Your task to perform on an android device: Go to ESPN.com Image 0: 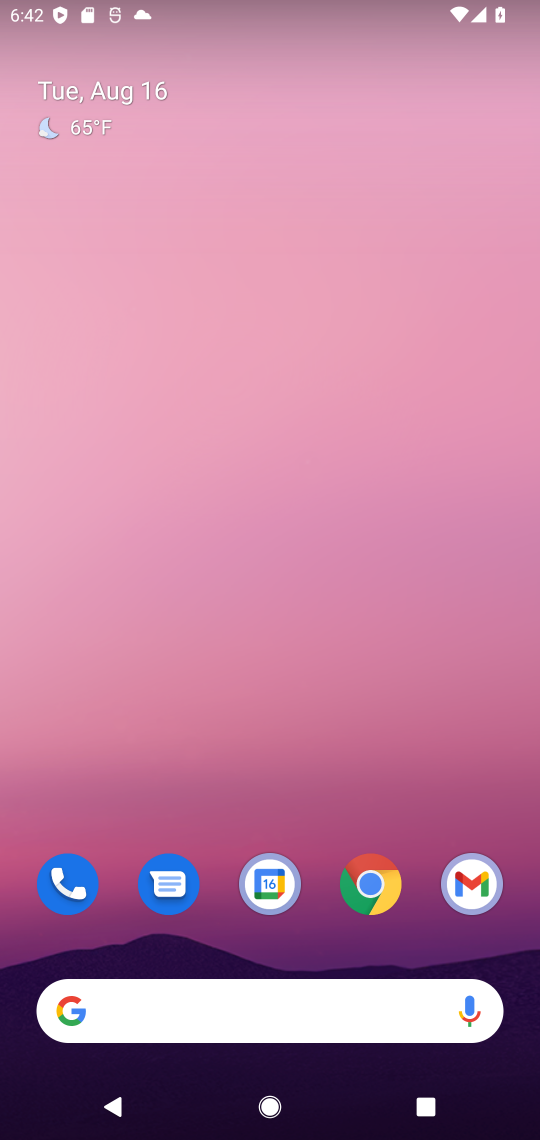
Step 0: press home button
Your task to perform on an android device: Go to ESPN.com Image 1: 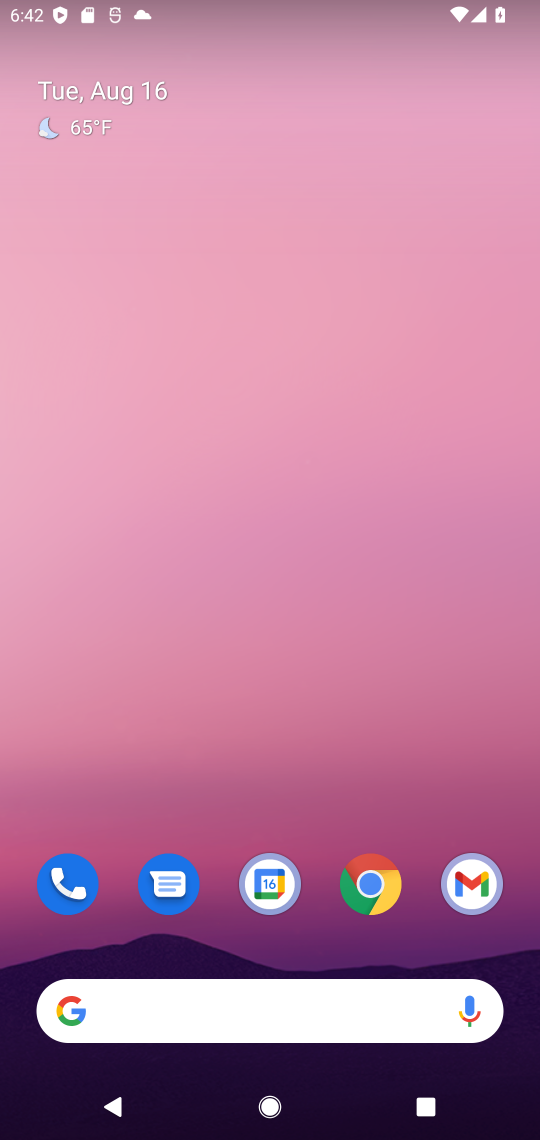
Step 1: click (69, 1012)
Your task to perform on an android device: Go to ESPN.com Image 2: 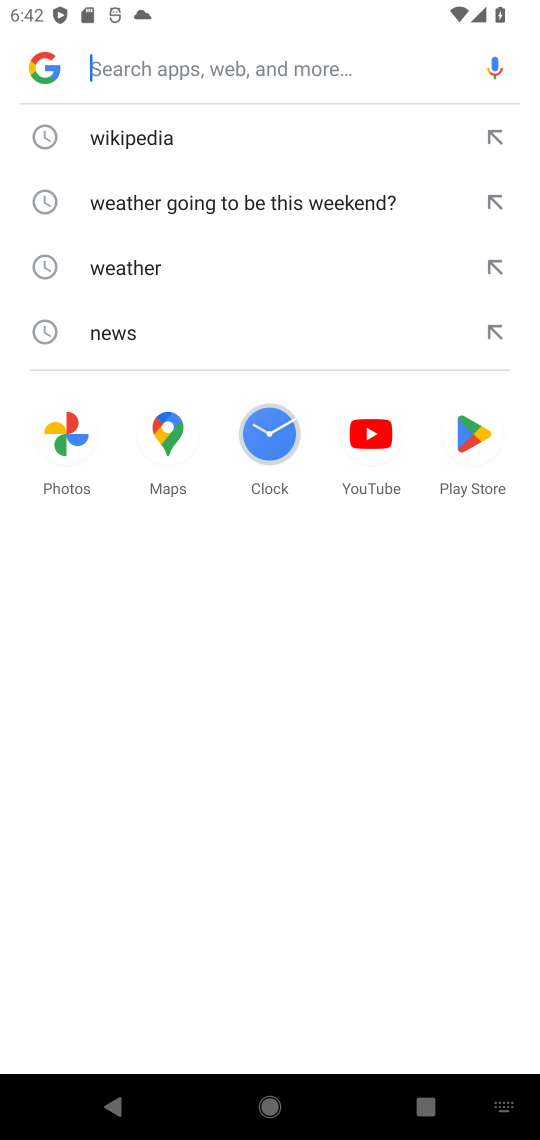
Step 2: type "ESPN.com"
Your task to perform on an android device: Go to ESPN.com Image 3: 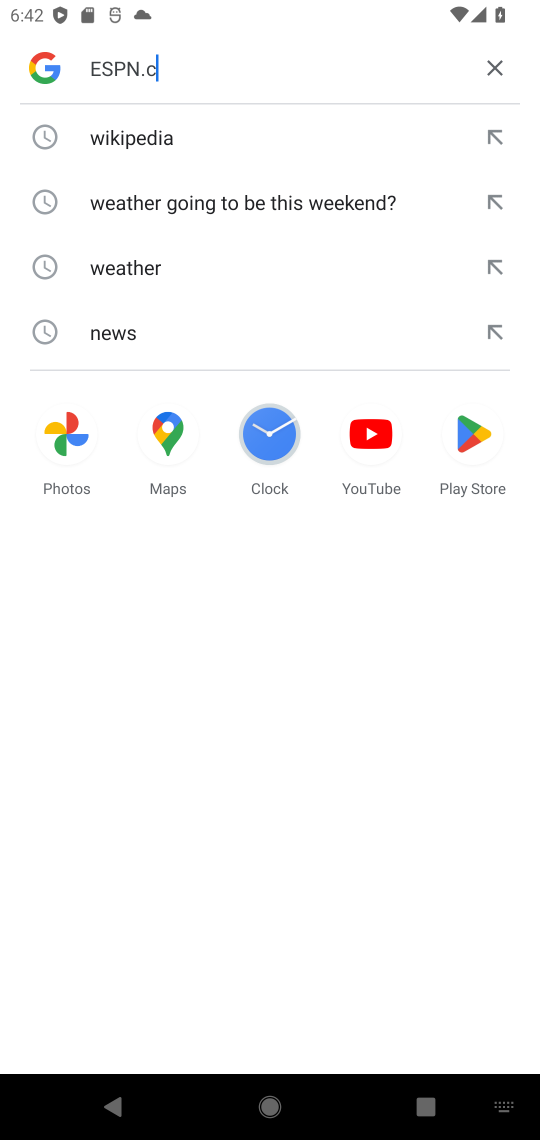
Step 3: press enter
Your task to perform on an android device: Go to ESPN.com Image 4: 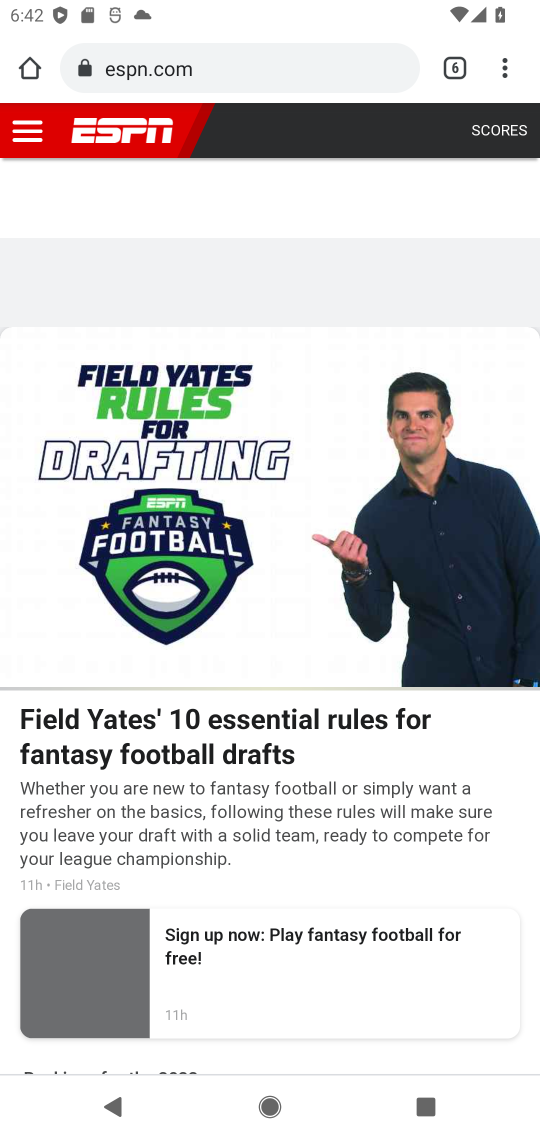
Step 4: task complete